Your task to perform on an android device: Open Reddit.com Image 0: 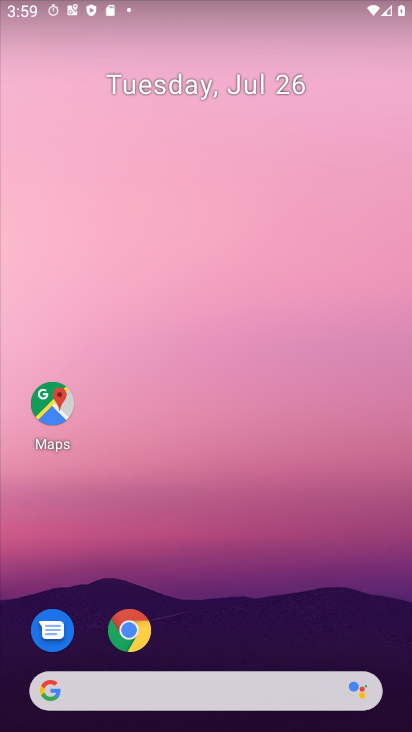
Step 0: click (122, 633)
Your task to perform on an android device: Open Reddit.com Image 1: 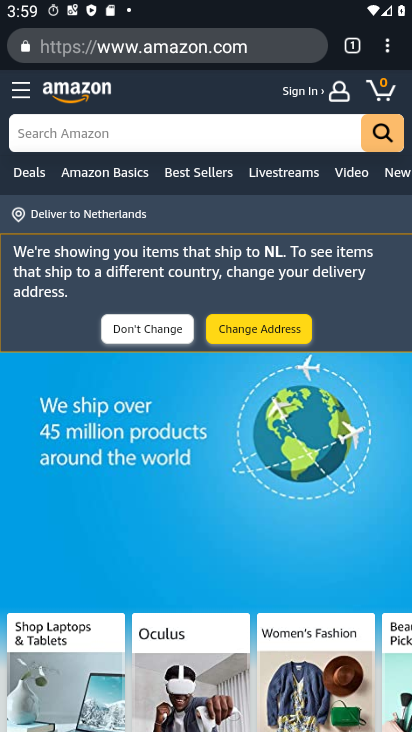
Step 1: click (173, 43)
Your task to perform on an android device: Open Reddit.com Image 2: 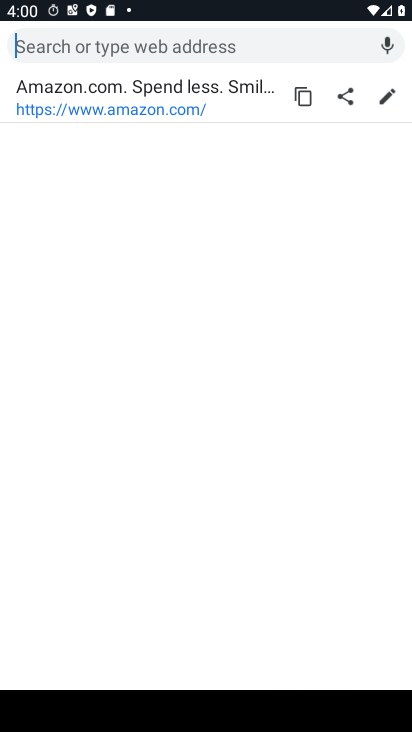
Step 2: type "reddit.com"
Your task to perform on an android device: Open Reddit.com Image 3: 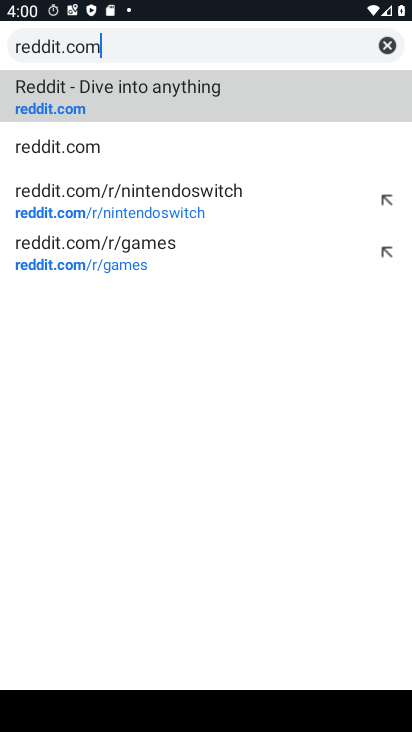
Step 3: click (208, 101)
Your task to perform on an android device: Open Reddit.com Image 4: 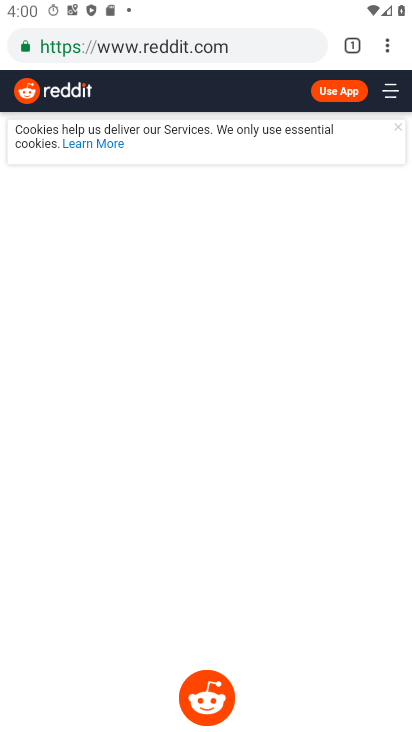
Step 4: task complete